Your task to perform on an android device: open app "Move to iOS" (install if not already installed), go to login, and select forgot password Image 0: 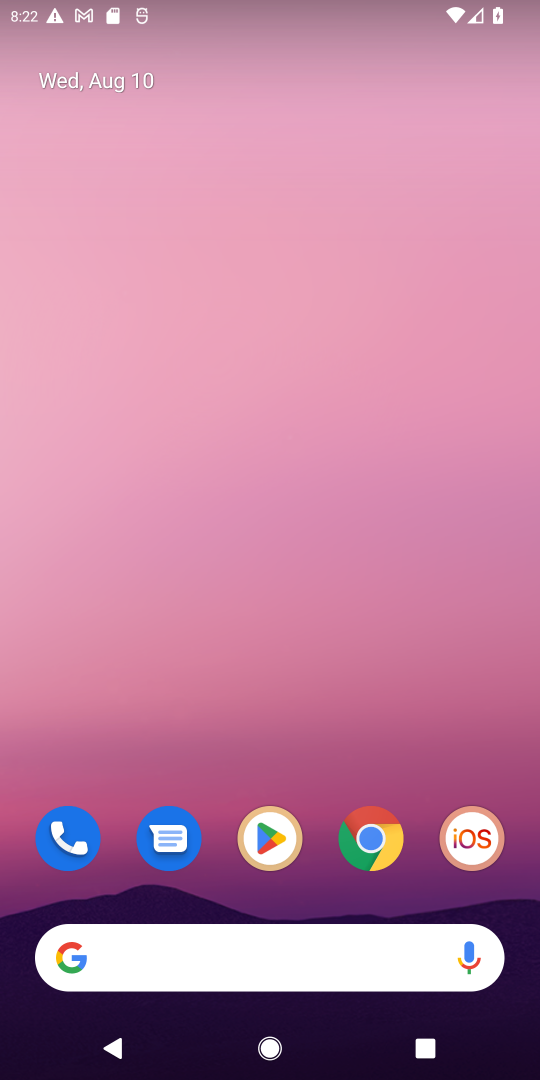
Step 0: click (265, 821)
Your task to perform on an android device: open app "Move to iOS" (install if not already installed), go to login, and select forgot password Image 1: 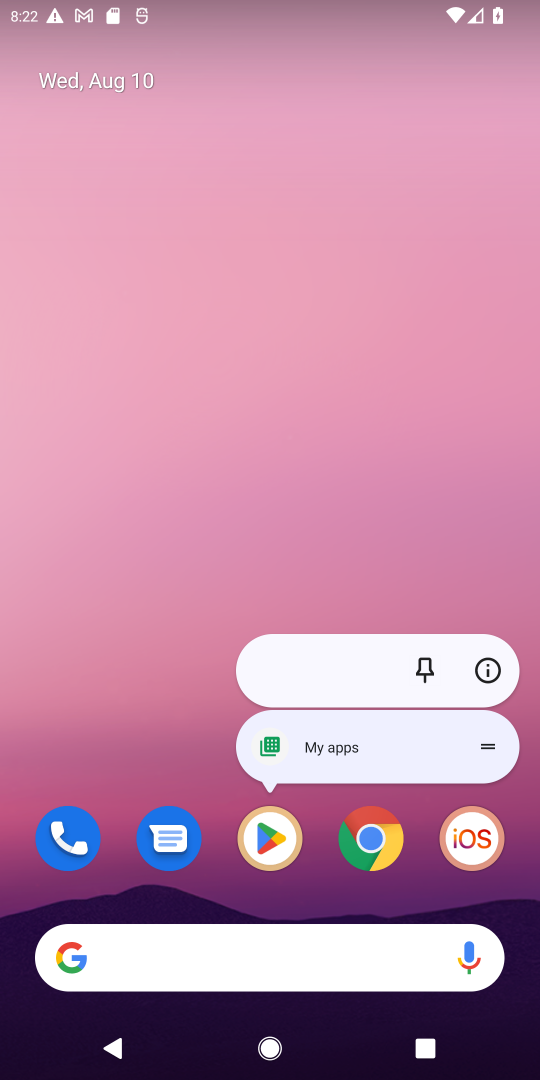
Step 1: click (265, 821)
Your task to perform on an android device: open app "Move to iOS" (install if not already installed), go to login, and select forgot password Image 2: 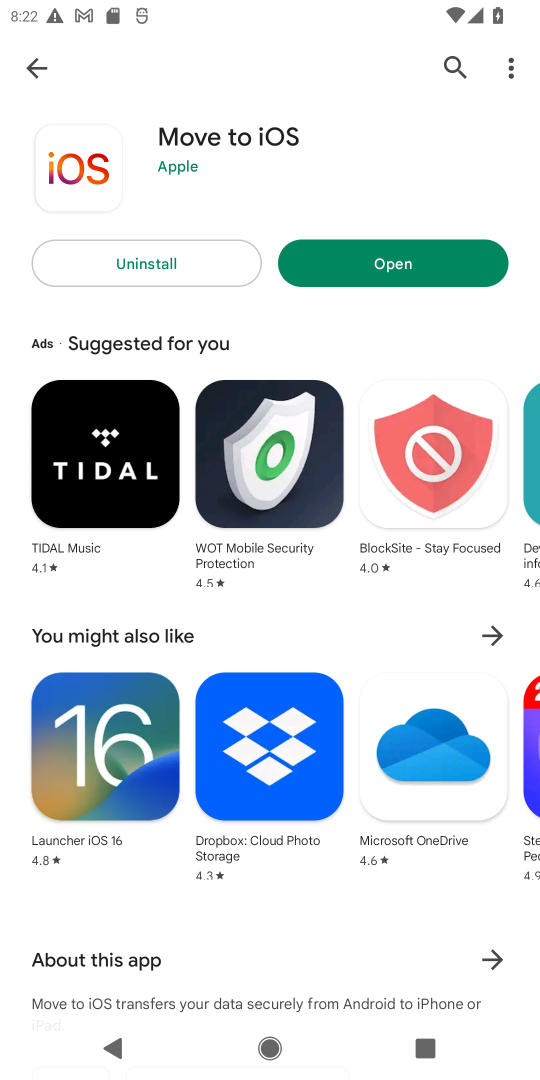
Step 2: click (375, 275)
Your task to perform on an android device: open app "Move to iOS" (install if not already installed), go to login, and select forgot password Image 3: 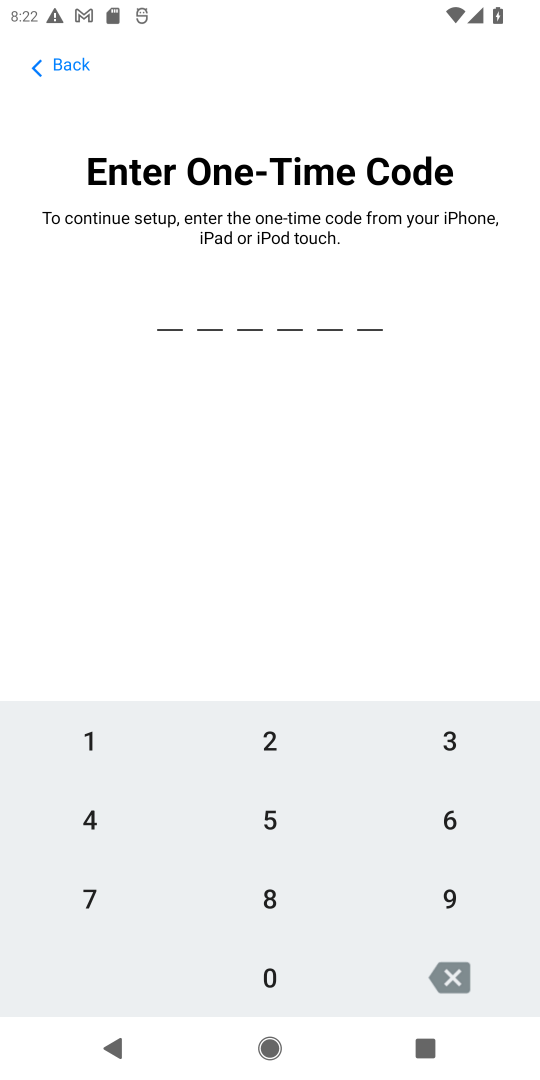
Step 3: task complete